Your task to perform on an android device: see tabs open on other devices in the chrome app Image 0: 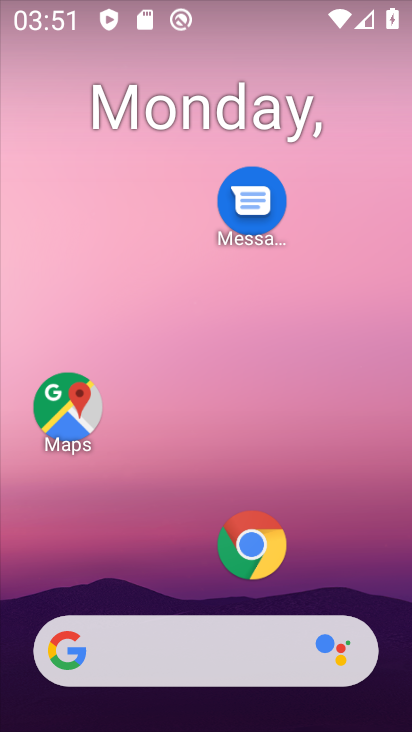
Step 0: click (263, 536)
Your task to perform on an android device: see tabs open on other devices in the chrome app Image 1: 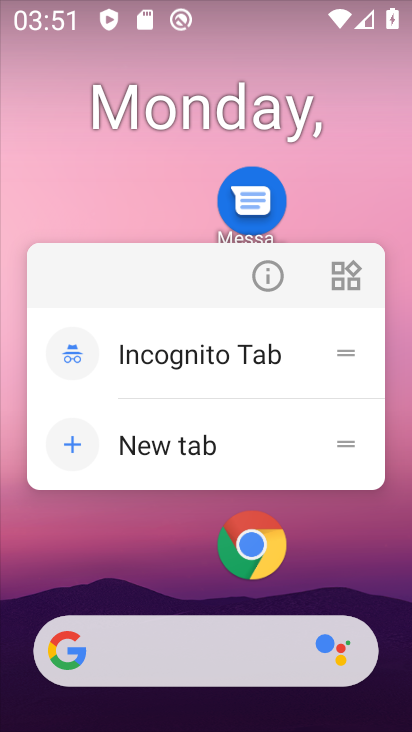
Step 1: click (254, 539)
Your task to perform on an android device: see tabs open on other devices in the chrome app Image 2: 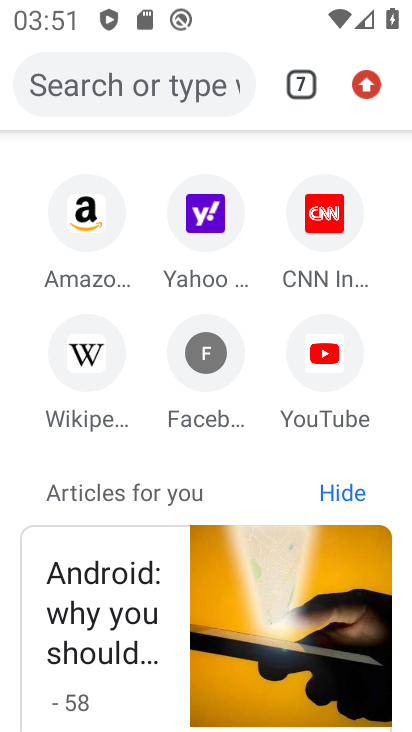
Step 2: task complete